Your task to perform on an android device: Go to Yahoo.com Image 0: 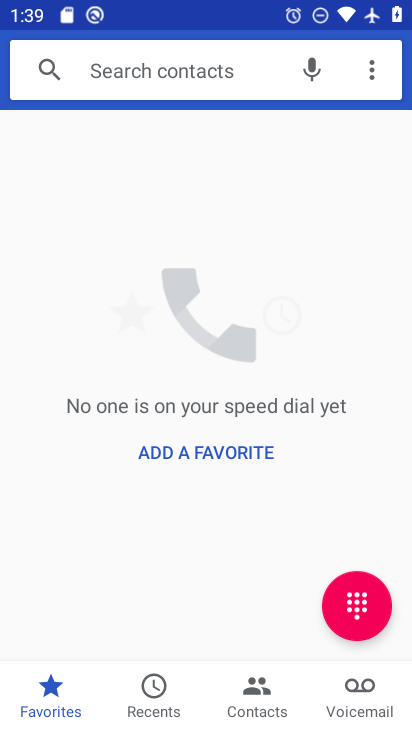
Step 0: press home button
Your task to perform on an android device: Go to Yahoo.com Image 1: 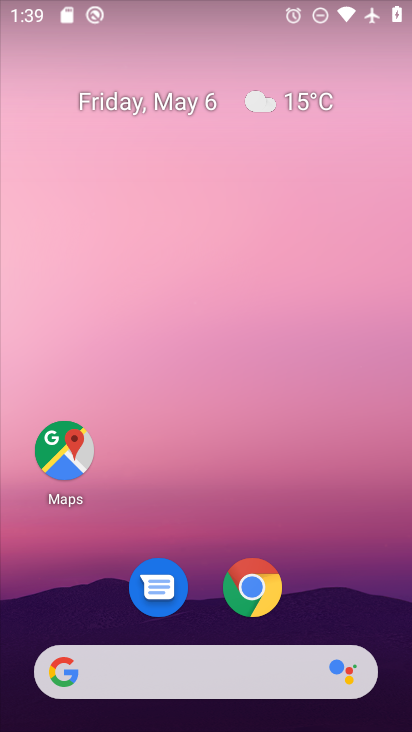
Step 1: click (259, 584)
Your task to perform on an android device: Go to Yahoo.com Image 2: 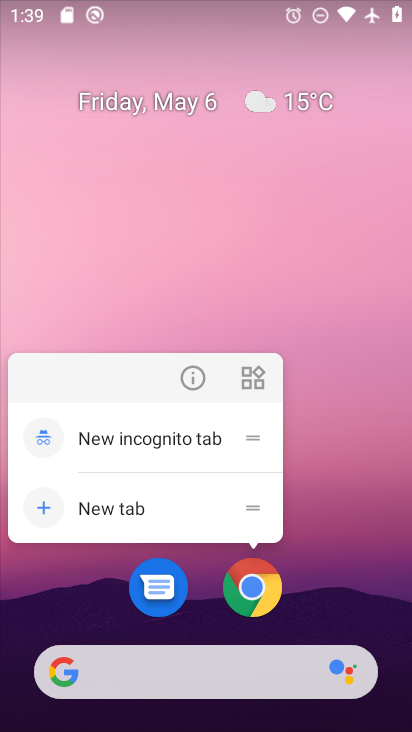
Step 2: click (252, 600)
Your task to perform on an android device: Go to Yahoo.com Image 3: 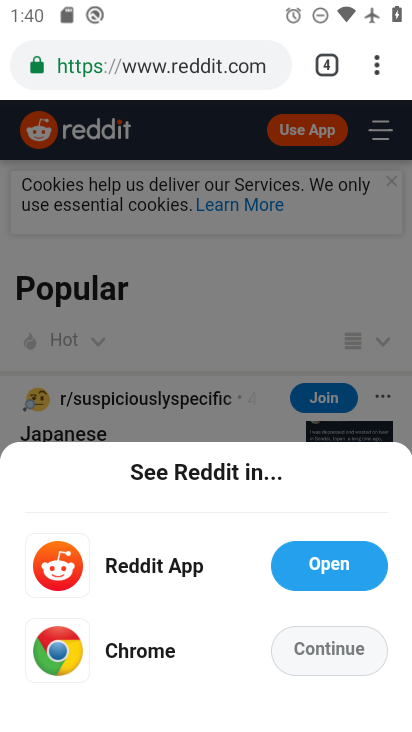
Step 3: click (329, 66)
Your task to perform on an android device: Go to Yahoo.com Image 4: 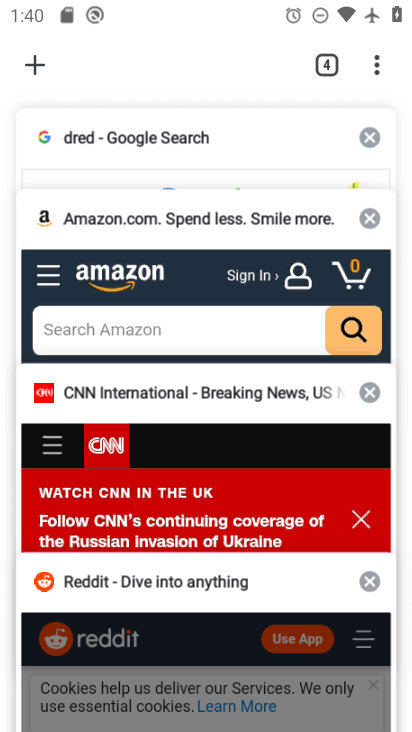
Step 4: click (31, 62)
Your task to perform on an android device: Go to Yahoo.com Image 5: 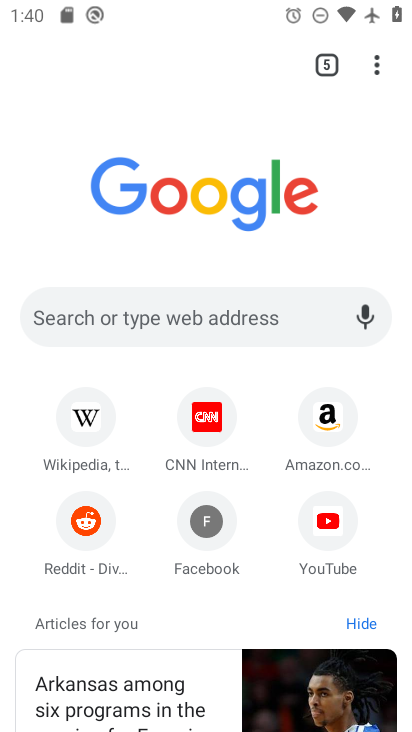
Step 5: click (170, 288)
Your task to perform on an android device: Go to Yahoo.com Image 6: 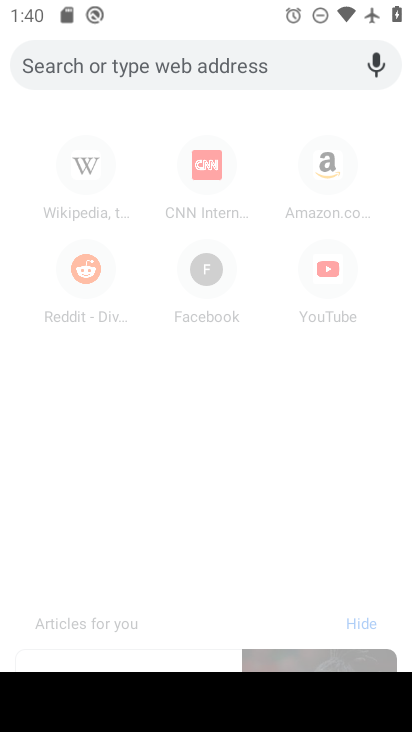
Step 6: type "yahoo.oom"
Your task to perform on an android device: Go to Yahoo.com Image 7: 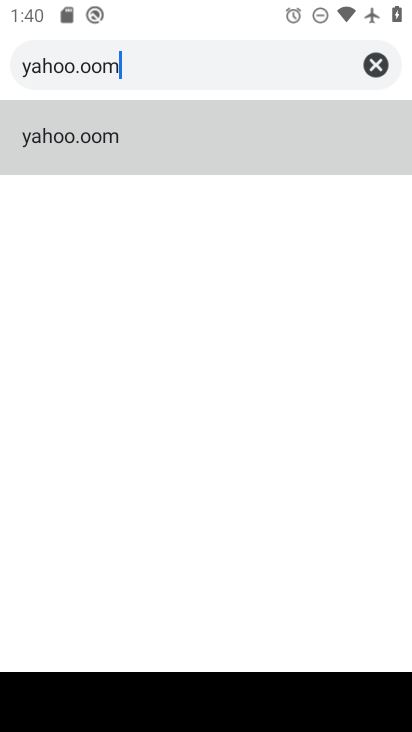
Step 7: click (191, 144)
Your task to perform on an android device: Go to Yahoo.com Image 8: 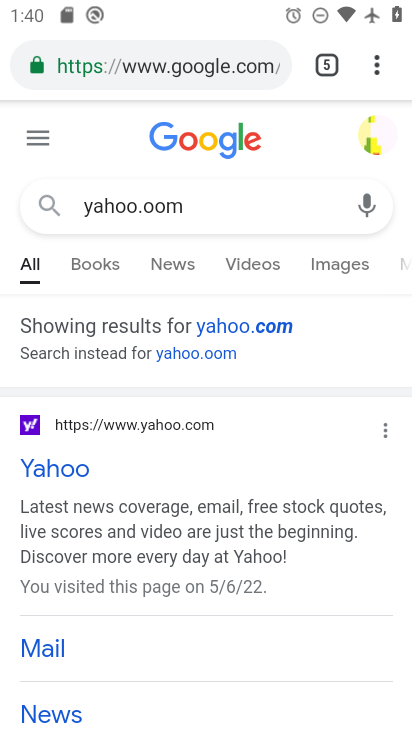
Step 8: click (67, 474)
Your task to perform on an android device: Go to Yahoo.com Image 9: 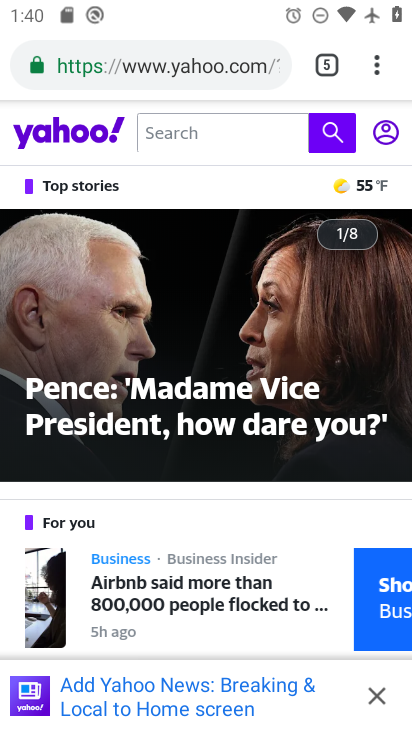
Step 9: task complete